Your task to perform on an android device: Go to display settings Image 0: 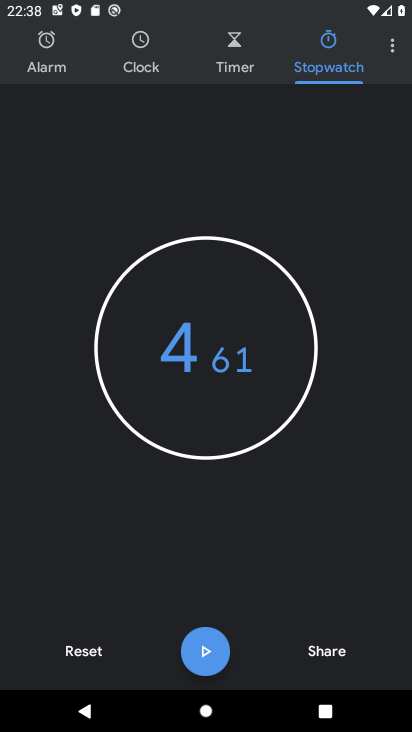
Step 0: press home button
Your task to perform on an android device: Go to display settings Image 1: 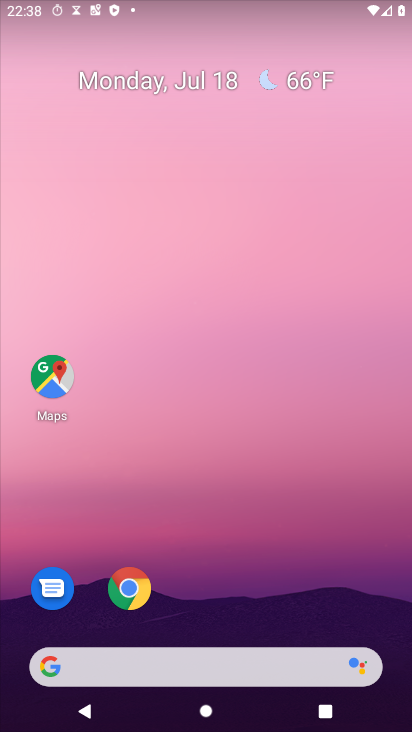
Step 1: drag from (249, 586) to (367, 69)
Your task to perform on an android device: Go to display settings Image 2: 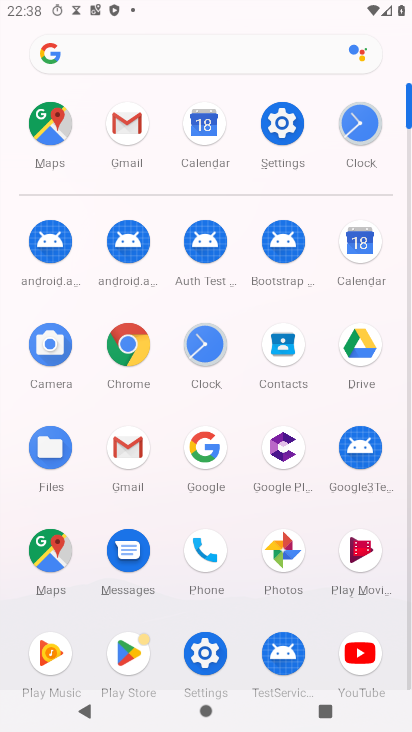
Step 2: click (273, 124)
Your task to perform on an android device: Go to display settings Image 3: 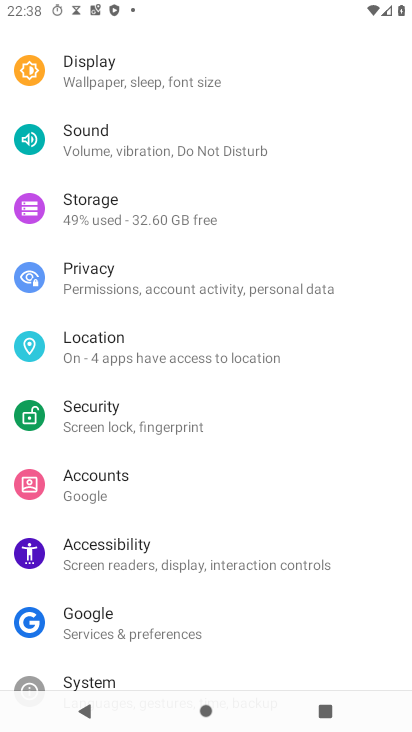
Step 3: click (129, 77)
Your task to perform on an android device: Go to display settings Image 4: 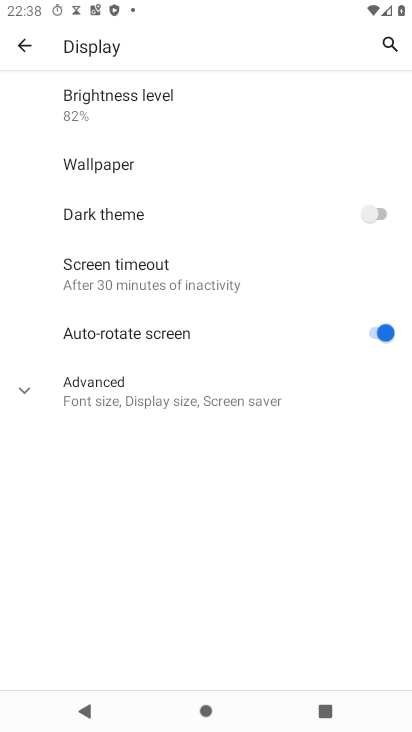
Step 4: task complete